Your task to perform on an android device: turn on bluetooth scan Image 0: 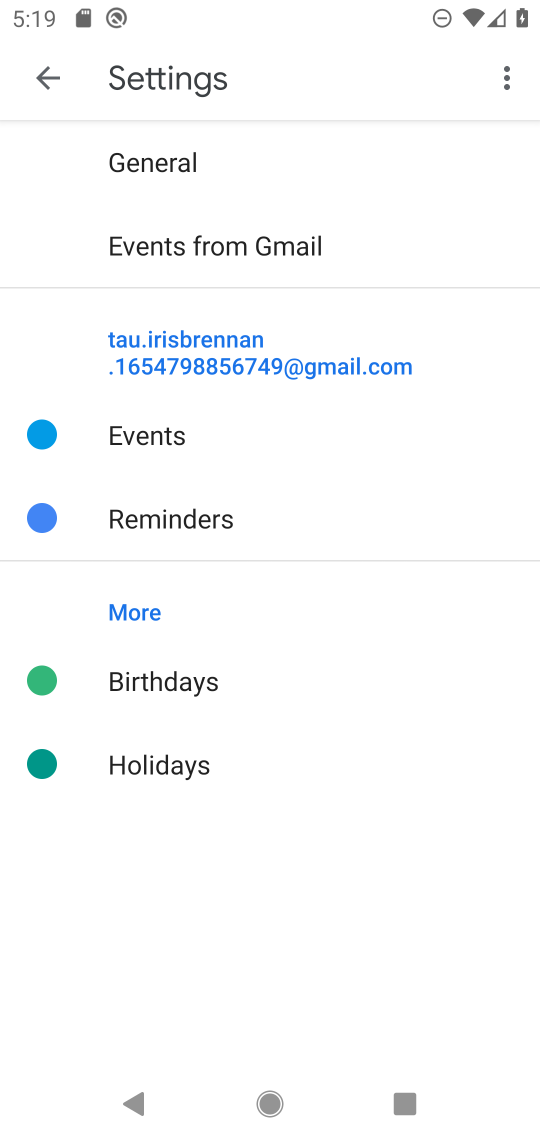
Step 0: press home button
Your task to perform on an android device: turn on bluetooth scan Image 1: 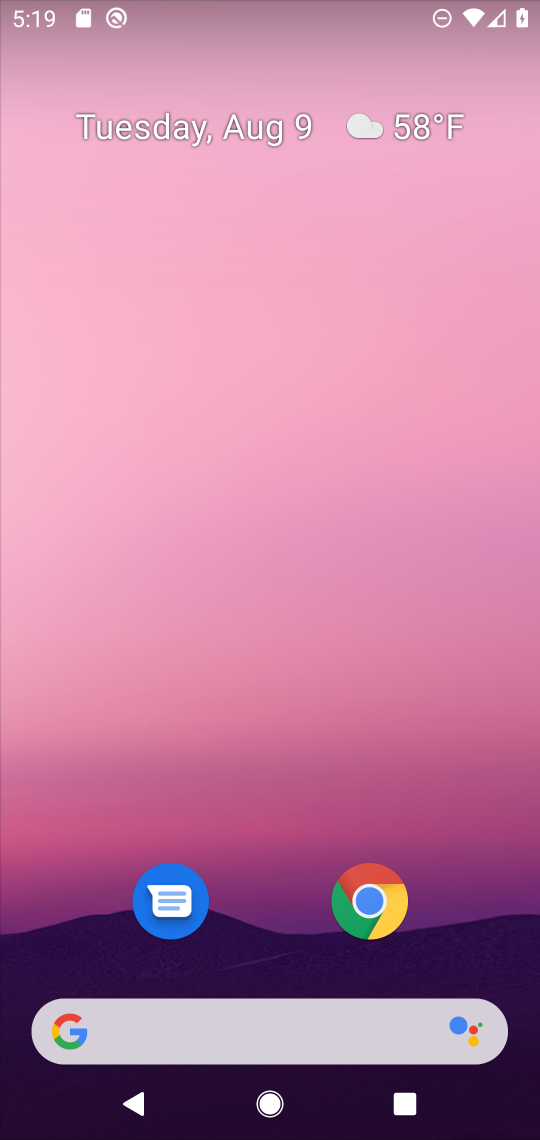
Step 1: drag from (258, 929) to (354, 11)
Your task to perform on an android device: turn on bluetooth scan Image 2: 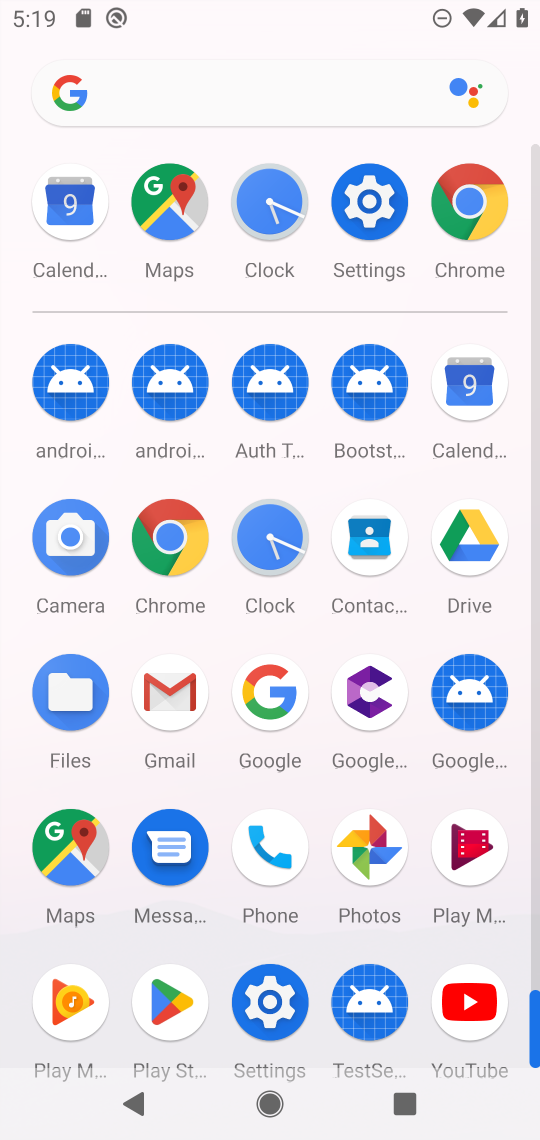
Step 2: click (269, 982)
Your task to perform on an android device: turn on bluetooth scan Image 3: 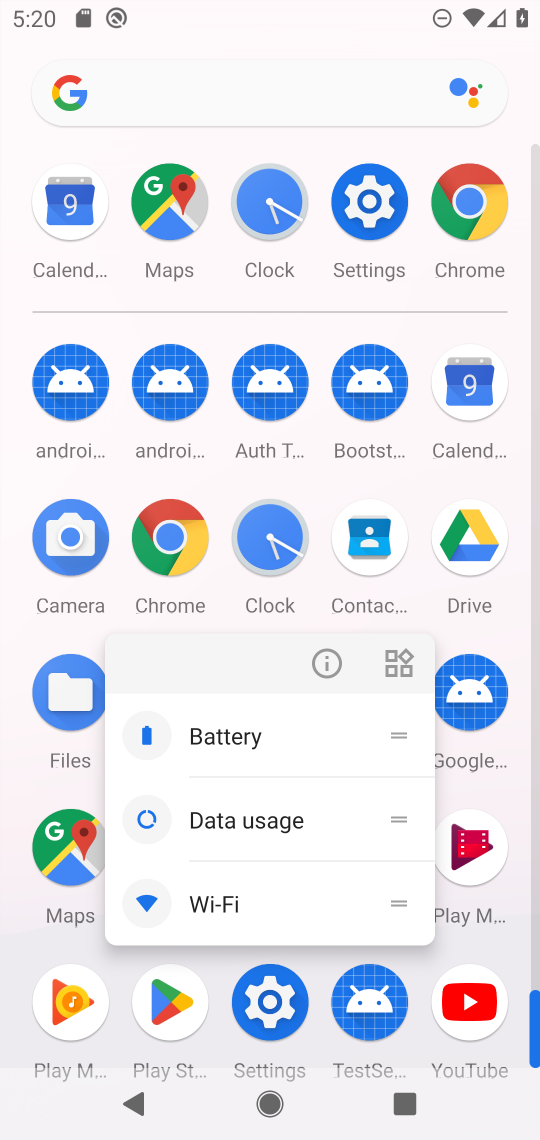
Step 3: click (256, 1003)
Your task to perform on an android device: turn on bluetooth scan Image 4: 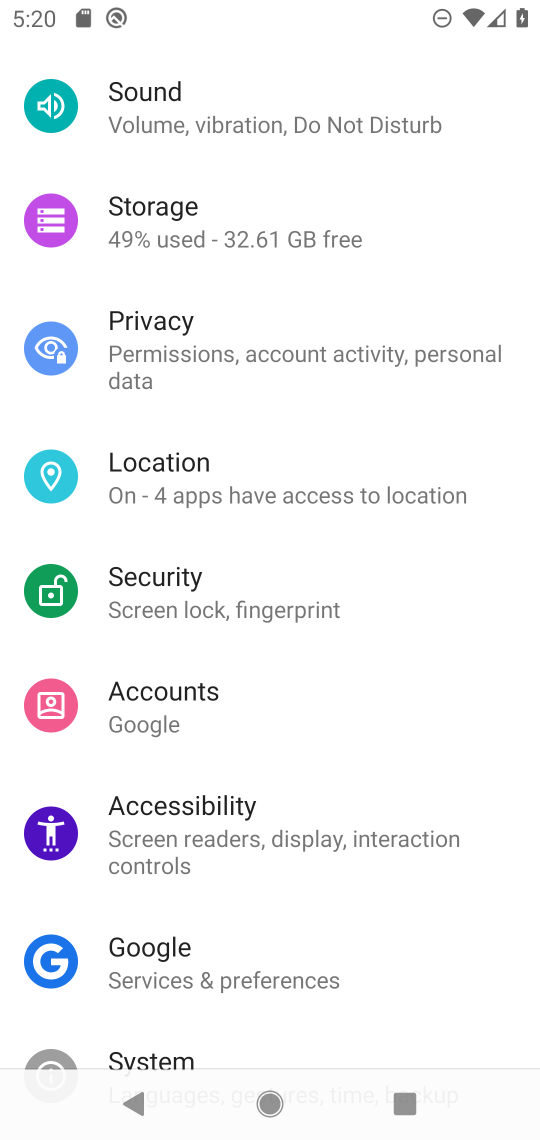
Step 4: click (200, 489)
Your task to perform on an android device: turn on bluetooth scan Image 5: 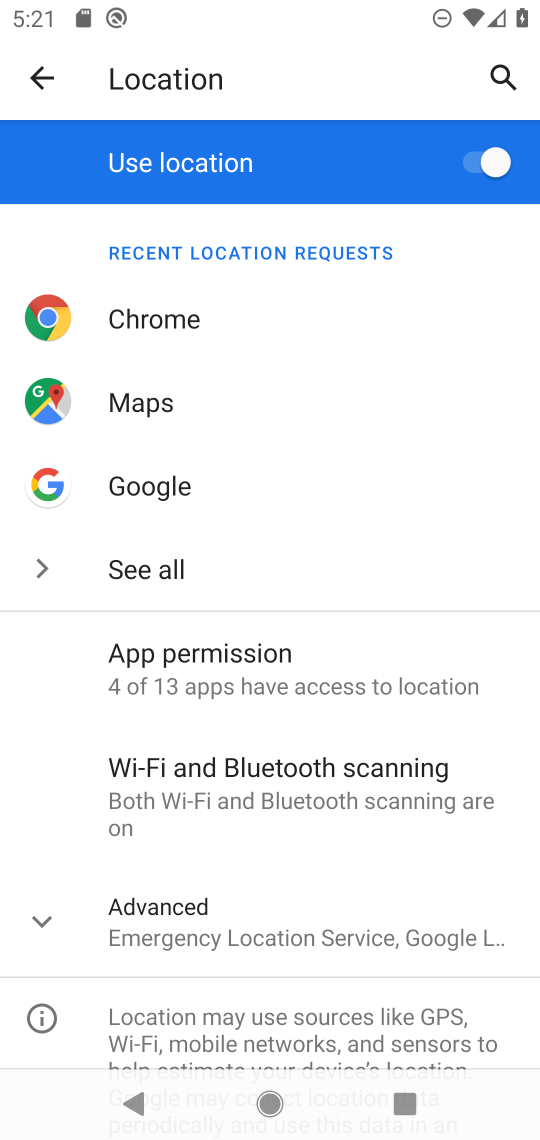
Step 5: click (279, 777)
Your task to perform on an android device: turn on bluetooth scan Image 6: 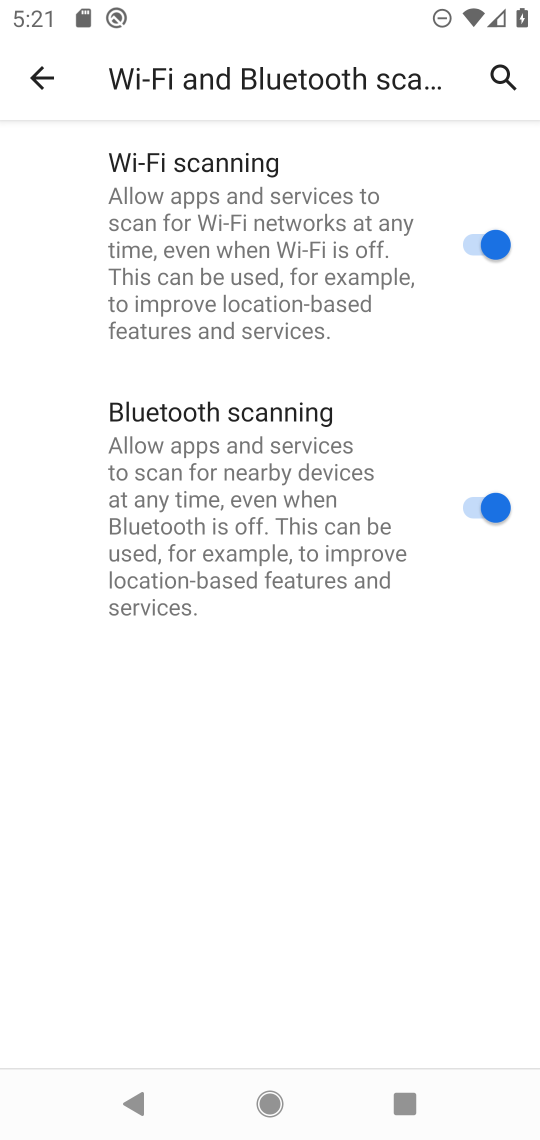
Step 6: task complete